Your task to perform on an android device: Open Google Maps and go to "Timeline" Image 0: 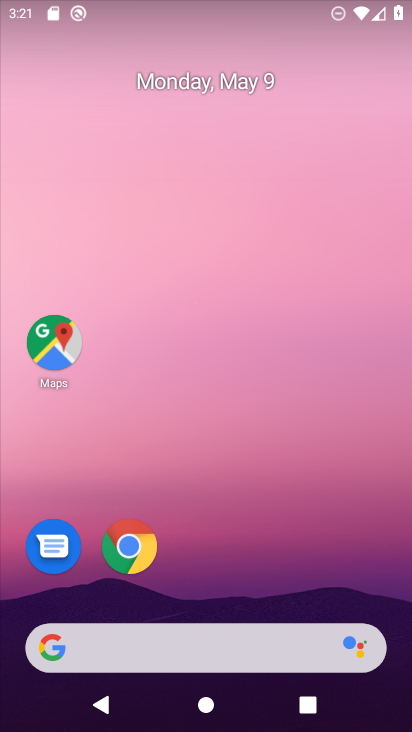
Step 0: click (49, 347)
Your task to perform on an android device: Open Google Maps and go to "Timeline" Image 1: 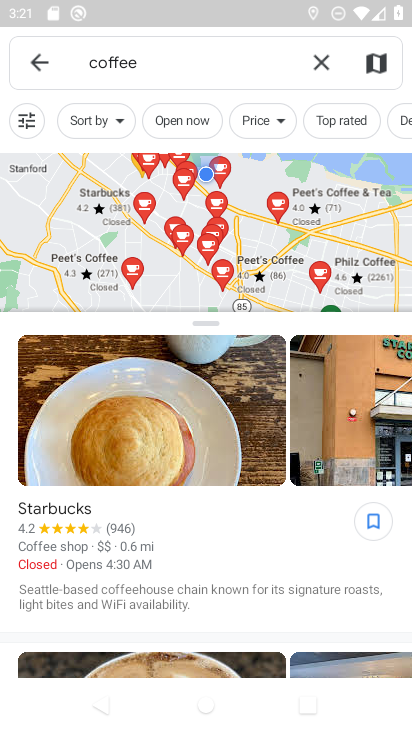
Step 1: click (38, 60)
Your task to perform on an android device: Open Google Maps and go to "Timeline" Image 2: 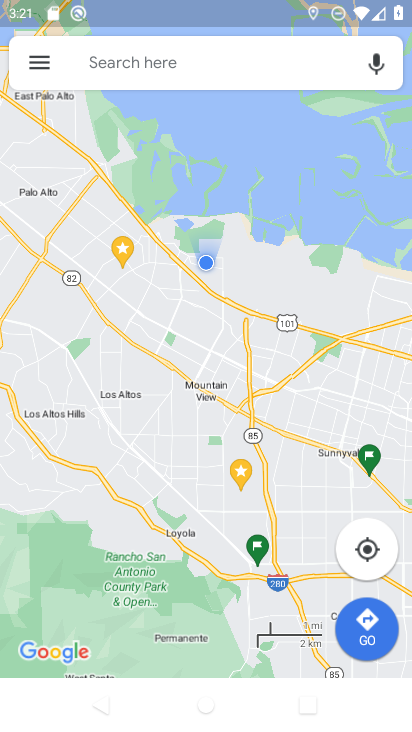
Step 2: click (38, 60)
Your task to perform on an android device: Open Google Maps and go to "Timeline" Image 3: 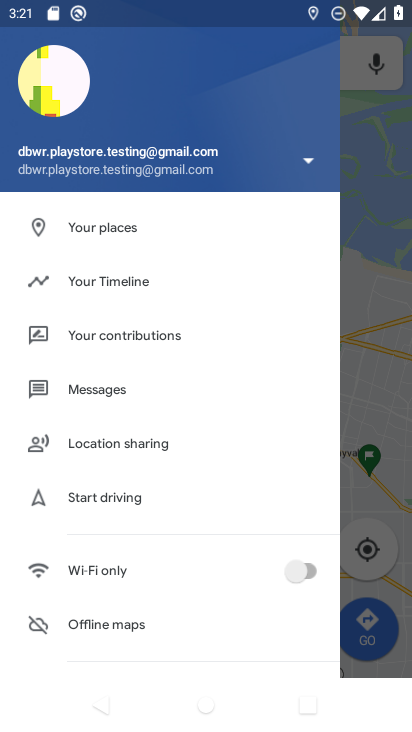
Step 3: click (100, 283)
Your task to perform on an android device: Open Google Maps and go to "Timeline" Image 4: 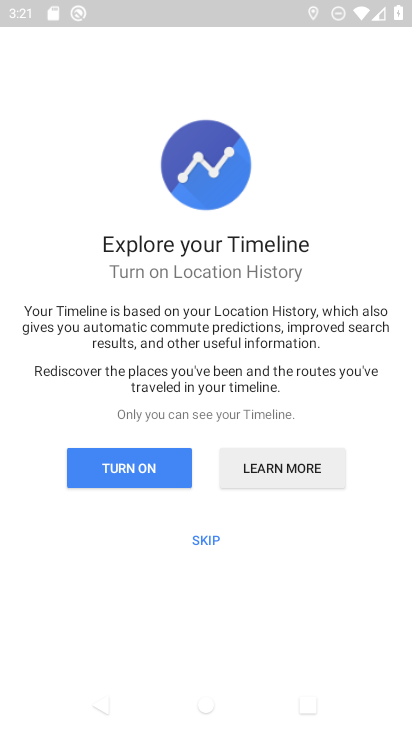
Step 4: click (193, 531)
Your task to perform on an android device: Open Google Maps and go to "Timeline" Image 5: 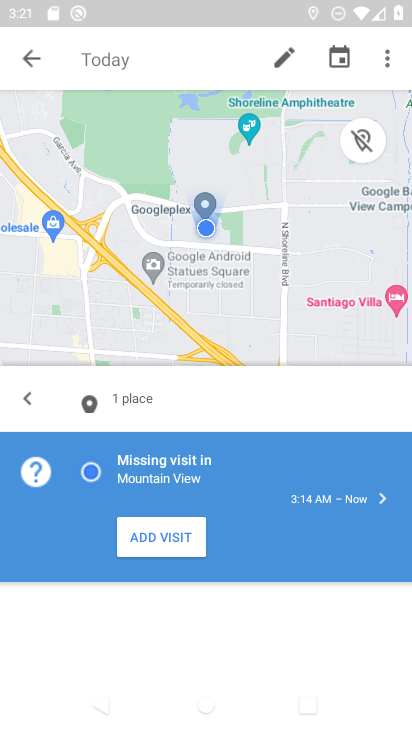
Step 5: task complete